Your task to perform on an android device: check data usage Image 0: 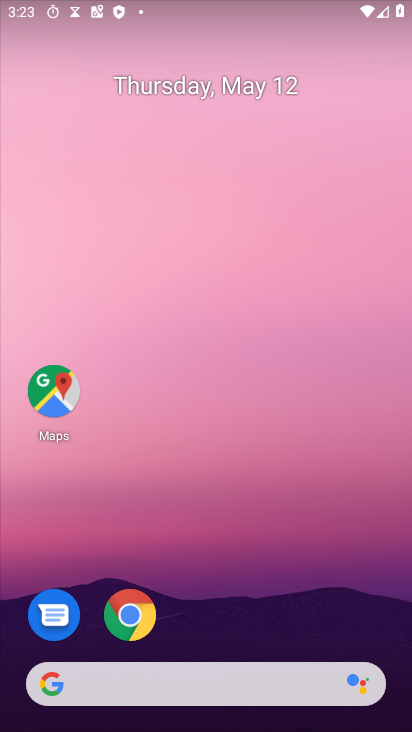
Step 0: press home button
Your task to perform on an android device: check data usage Image 1: 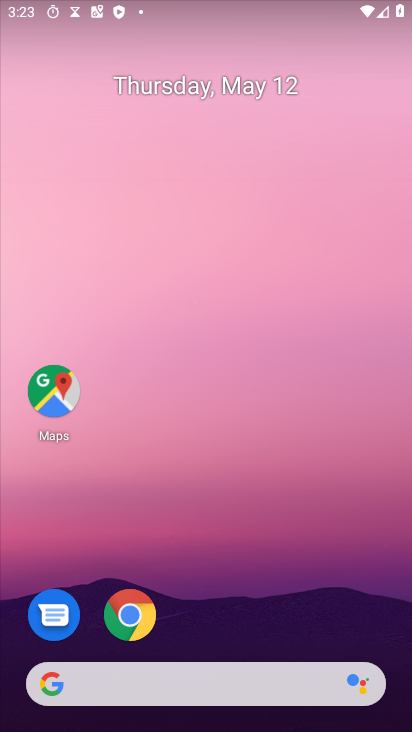
Step 1: drag from (52, 589) to (394, 110)
Your task to perform on an android device: check data usage Image 2: 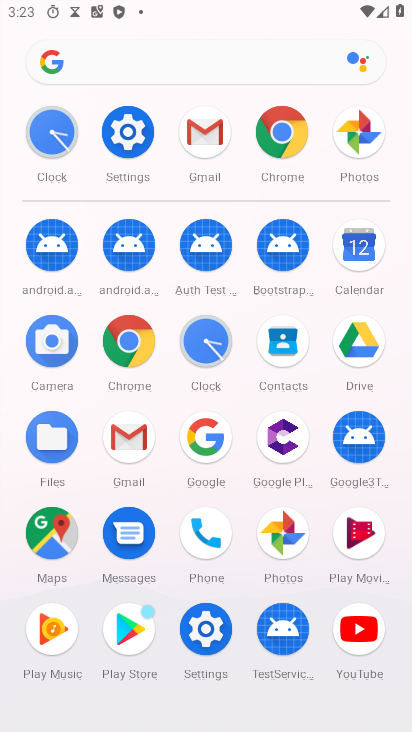
Step 2: click (128, 136)
Your task to perform on an android device: check data usage Image 3: 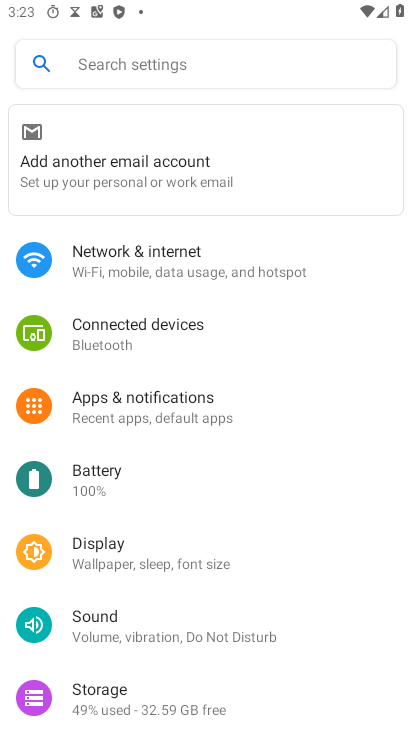
Step 3: click (146, 277)
Your task to perform on an android device: check data usage Image 4: 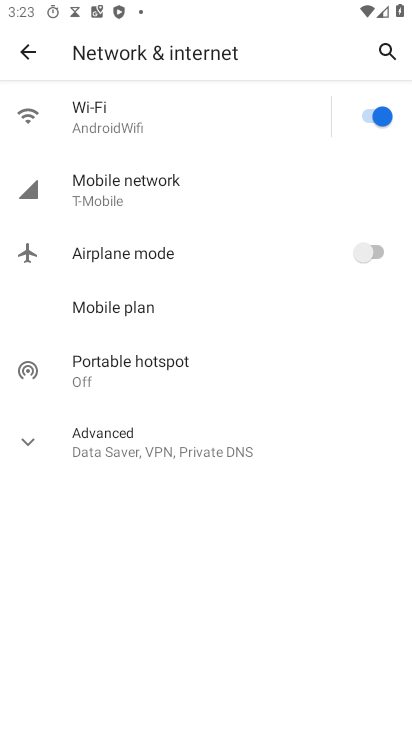
Step 4: click (103, 196)
Your task to perform on an android device: check data usage Image 5: 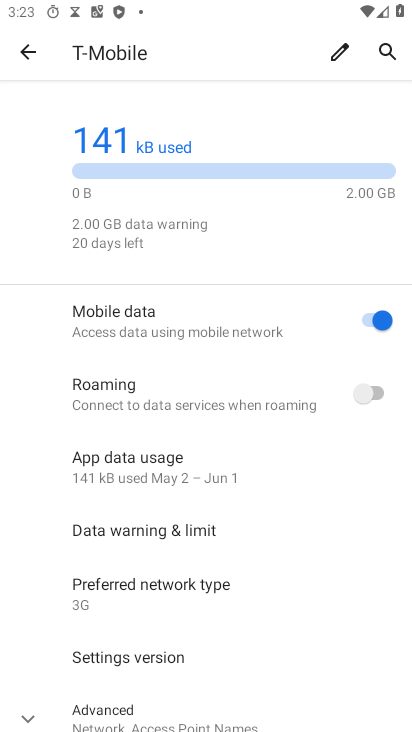
Step 5: task complete